Your task to perform on an android device: open app "Upside-Cash back on gas & food" (install if not already installed), go to login, and select forgot password Image 0: 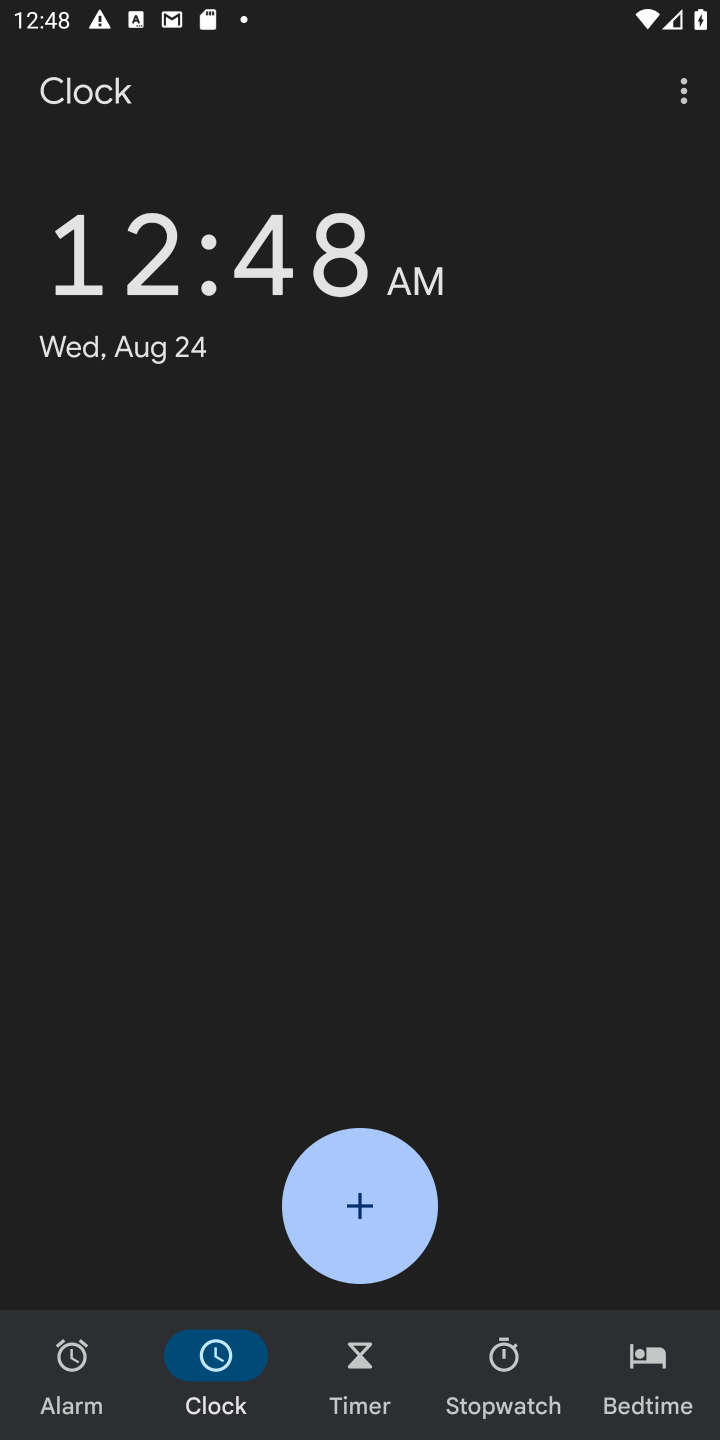
Step 0: press home button
Your task to perform on an android device: open app "Upside-Cash back on gas & food" (install if not already installed), go to login, and select forgot password Image 1: 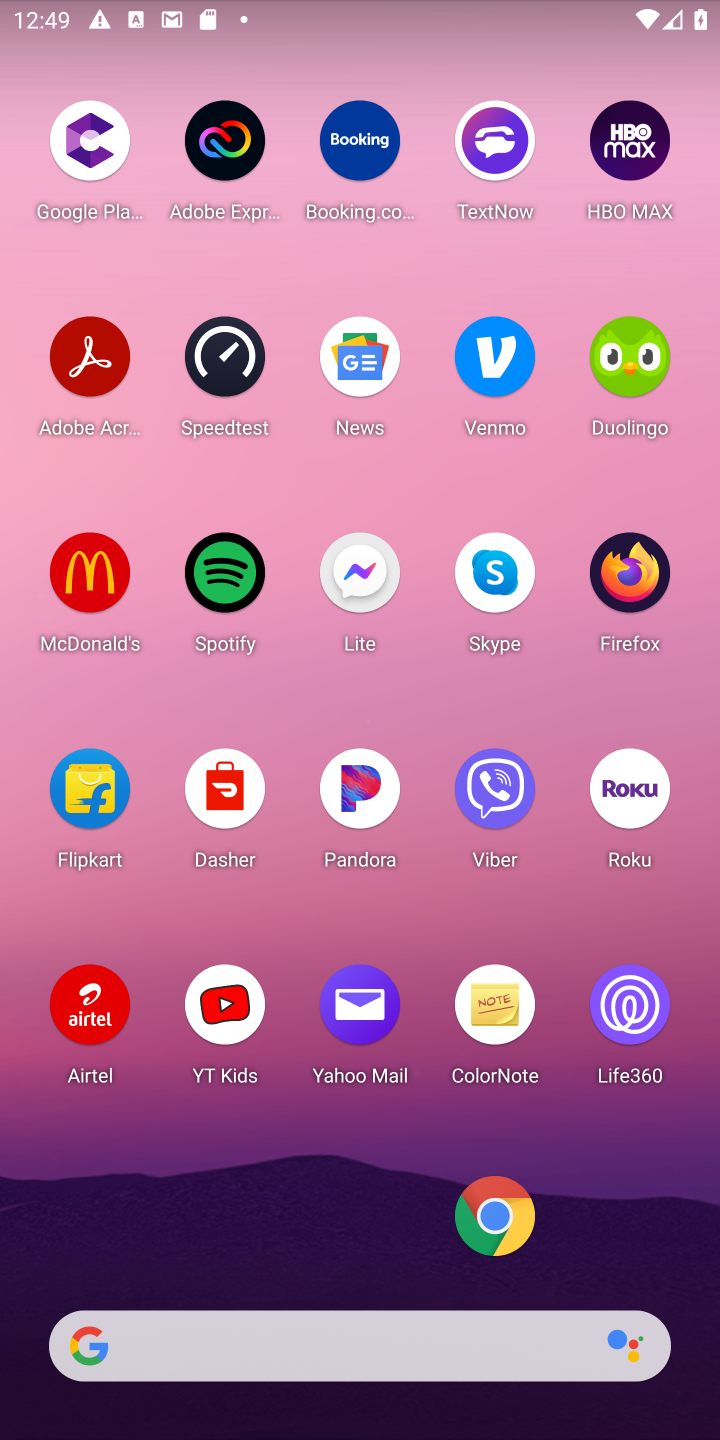
Step 1: drag from (316, 1288) to (410, 91)
Your task to perform on an android device: open app "Upside-Cash back on gas & food" (install if not already installed), go to login, and select forgot password Image 2: 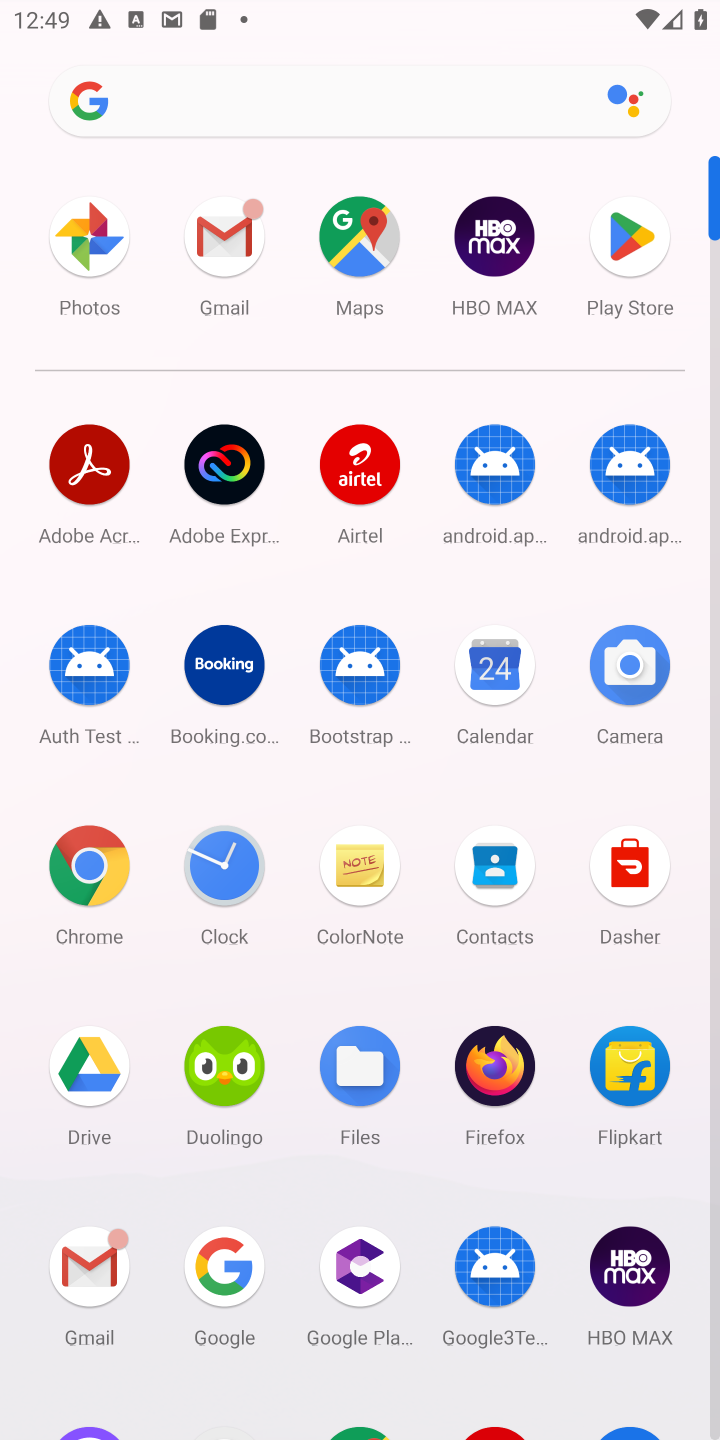
Step 2: click (633, 236)
Your task to perform on an android device: open app "Upside-Cash back on gas & food" (install if not already installed), go to login, and select forgot password Image 3: 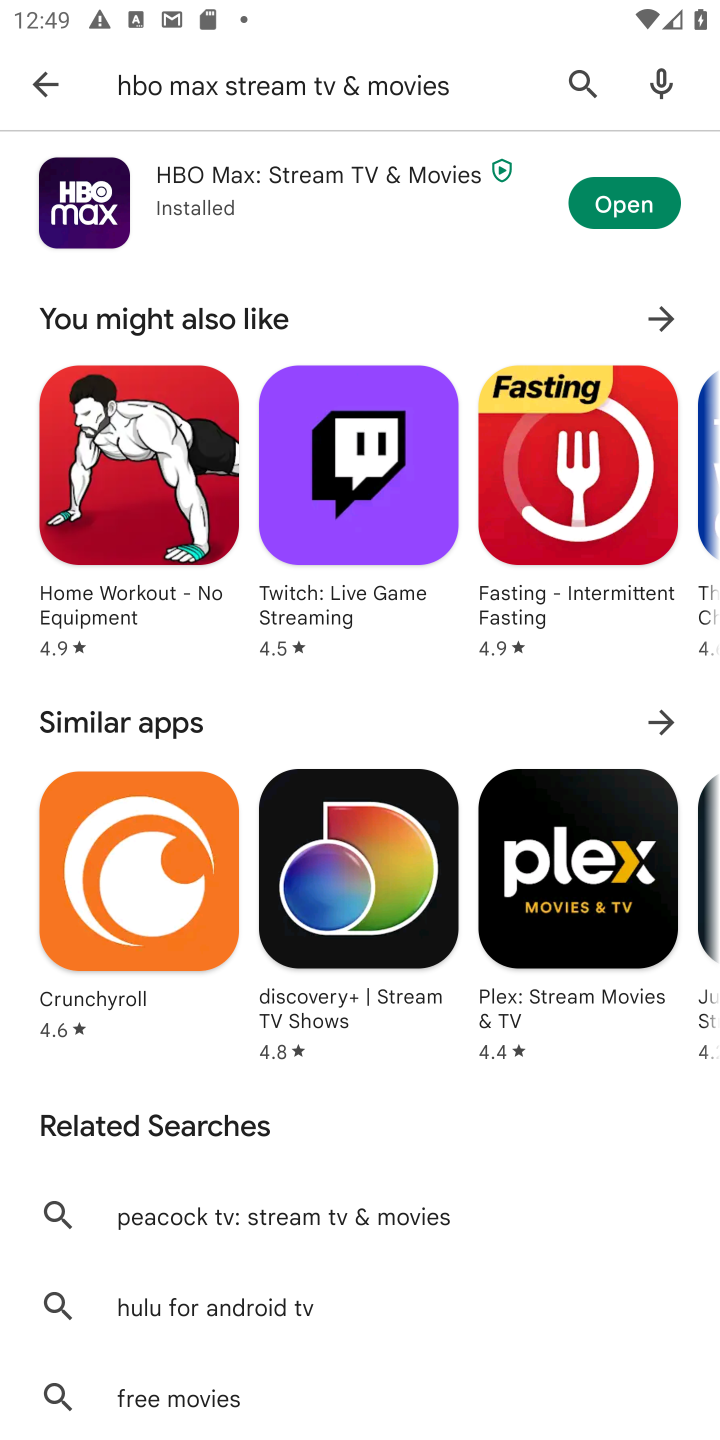
Step 3: press back button
Your task to perform on an android device: open app "Upside-Cash back on gas & food" (install if not already installed), go to login, and select forgot password Image 4: 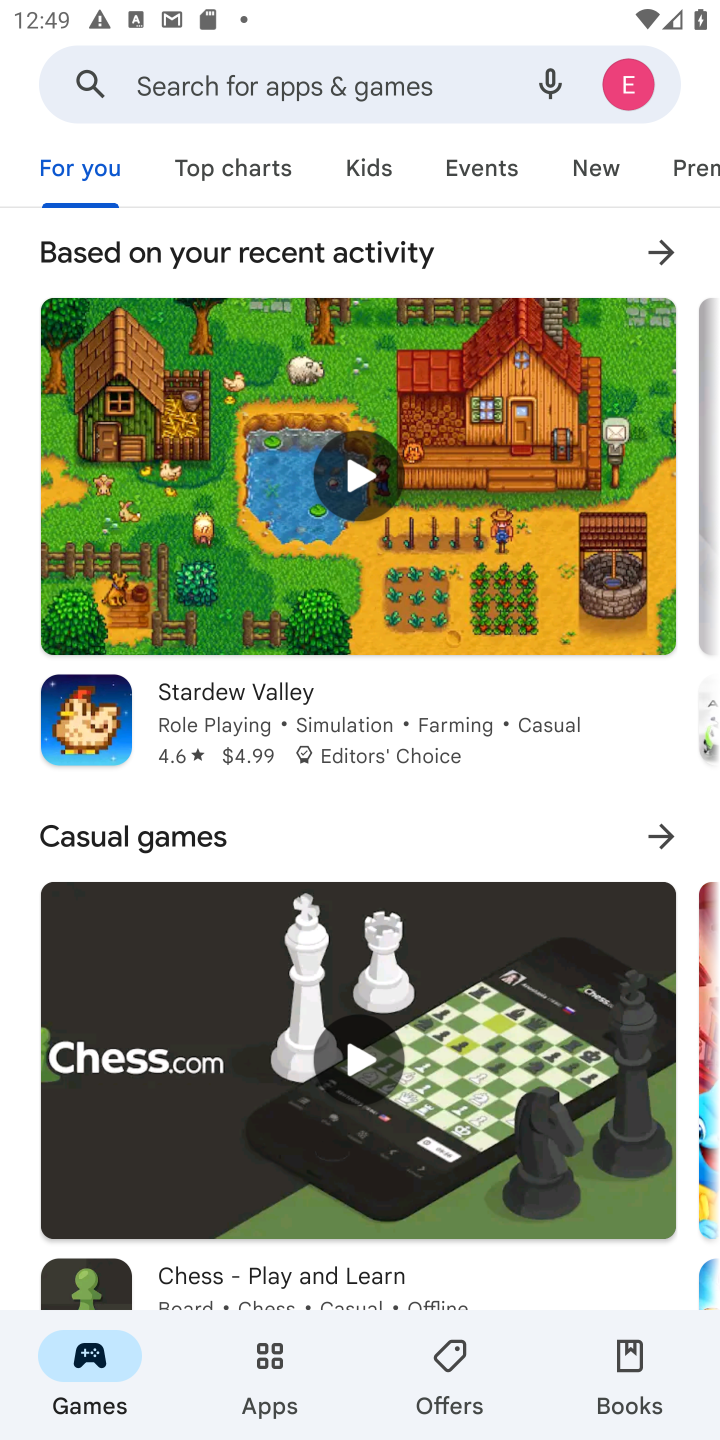
Step 4: click (355, 74)
Your task to perform on an android device: open app "Upside-Cash back on gas & food" (install if not already installed), go to login, and select forgot password Image 5: 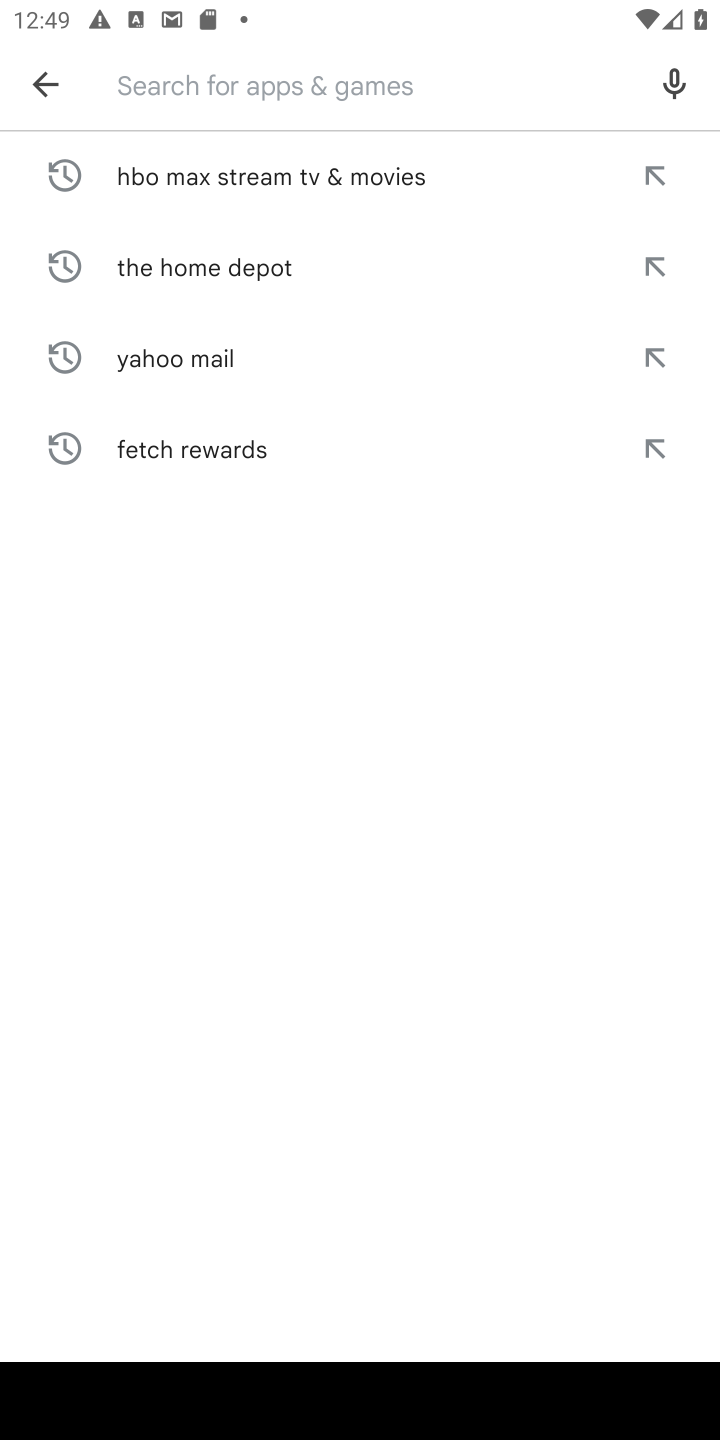
Step 5: type "Upside-Cash back on gas & food"
Your task to perform on an android device: open app "Upside-Cash back on gas & food" (install if not already installed), go to login, and select forgot password Image 6: 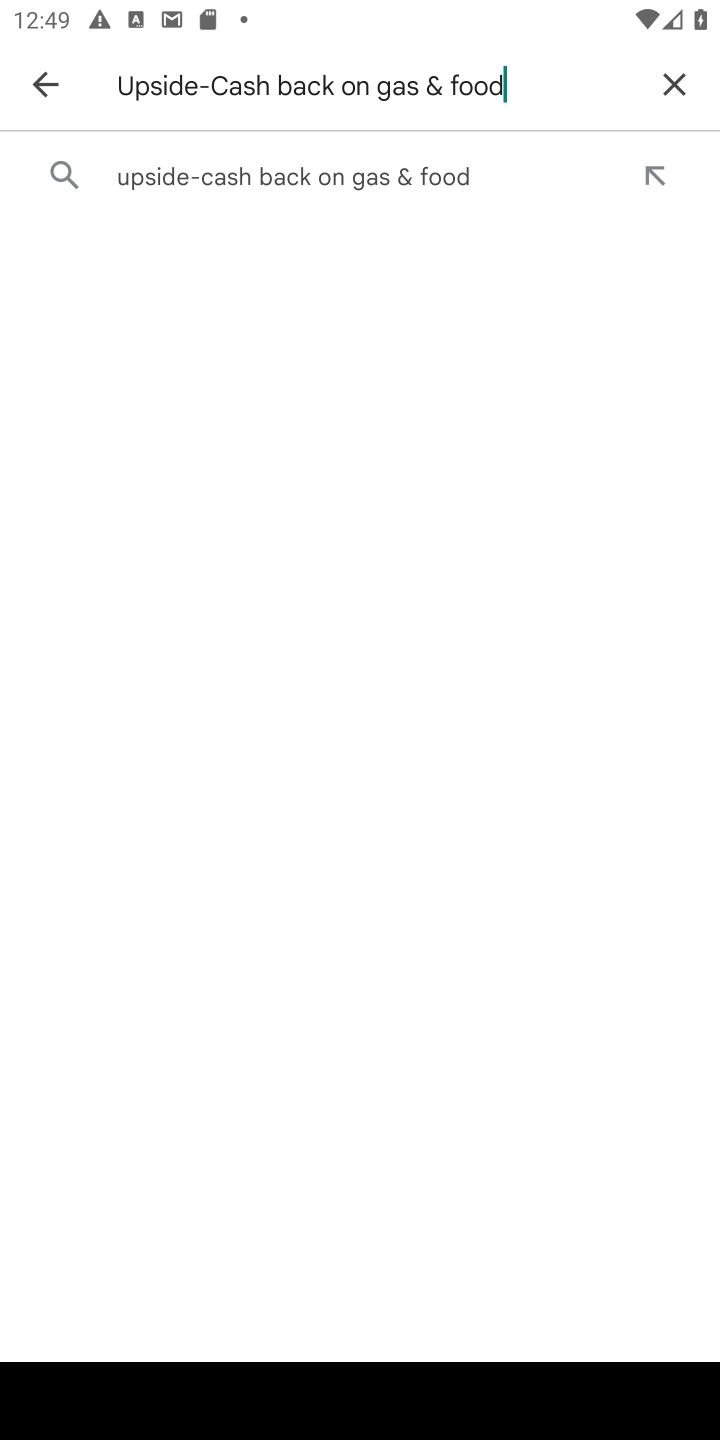
Step 6: click (355, 175)
Your task to perform on an android device: open app "Upside-Cash back on gas & food" (install if not already installed), go to login, and select forgot password Image 7: 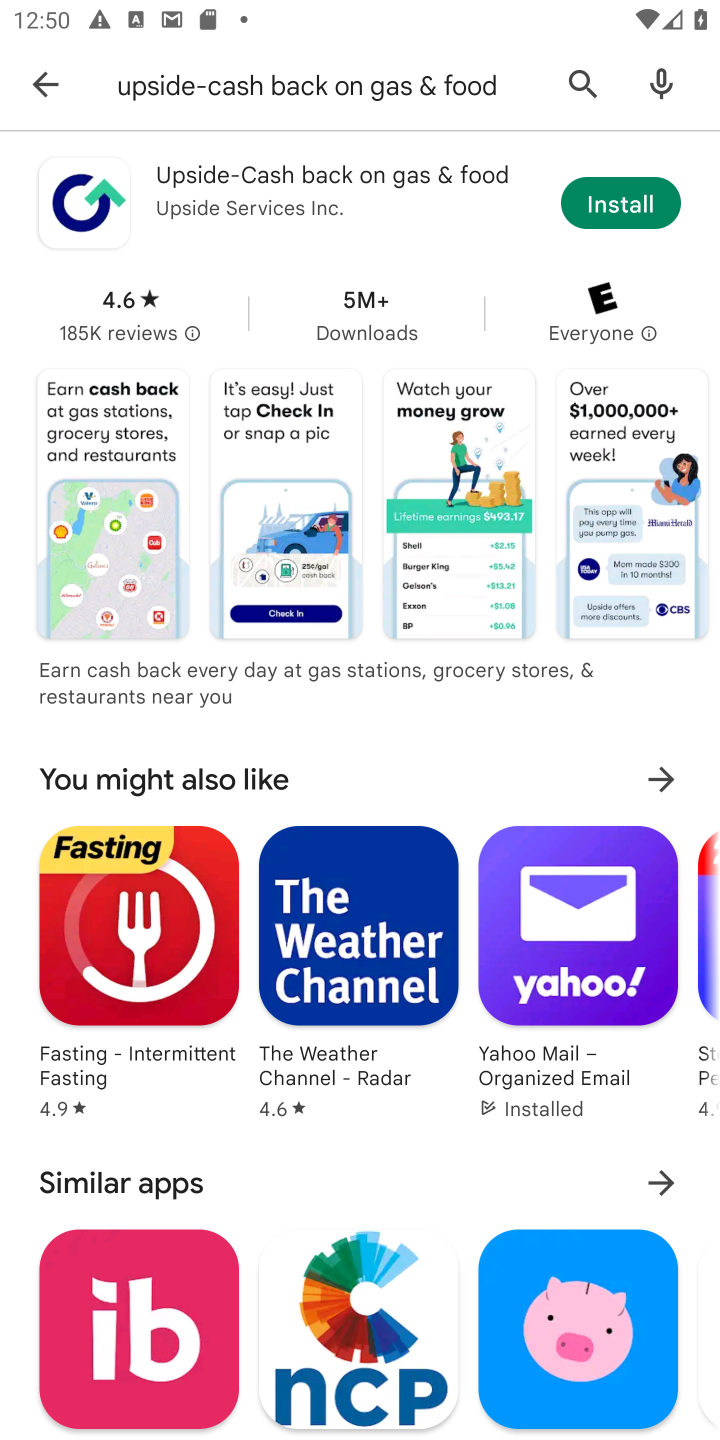
Step 7: click (604, 202)
Your task to perform on an android device: open app "Upside-Cash back on gas & food" (install if not already installed), go to login, and select forgot password Image 8: 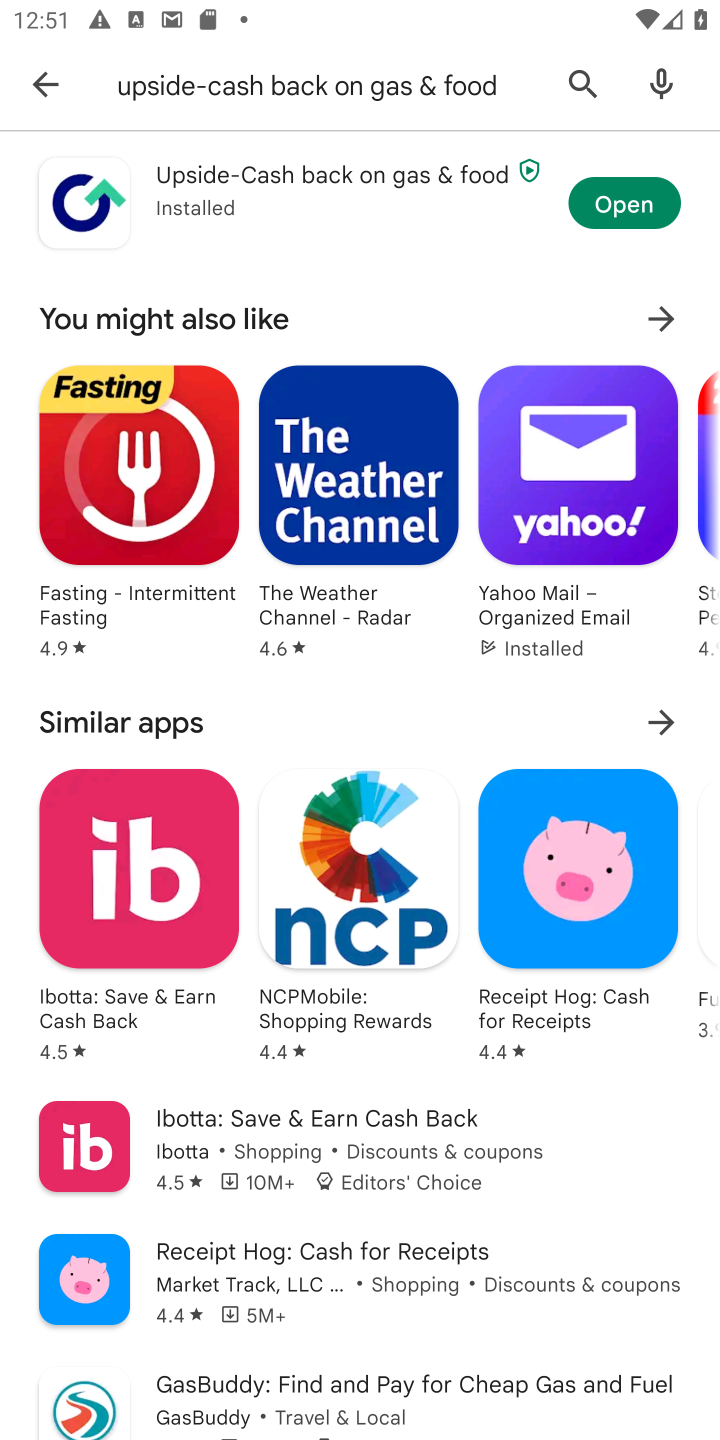
Step 8: click (608, 214)
Your task to perform on an android device: open app "Upside-Cash back on gas & food" (install if not already installed), go to login, and select forgot password Image 9: 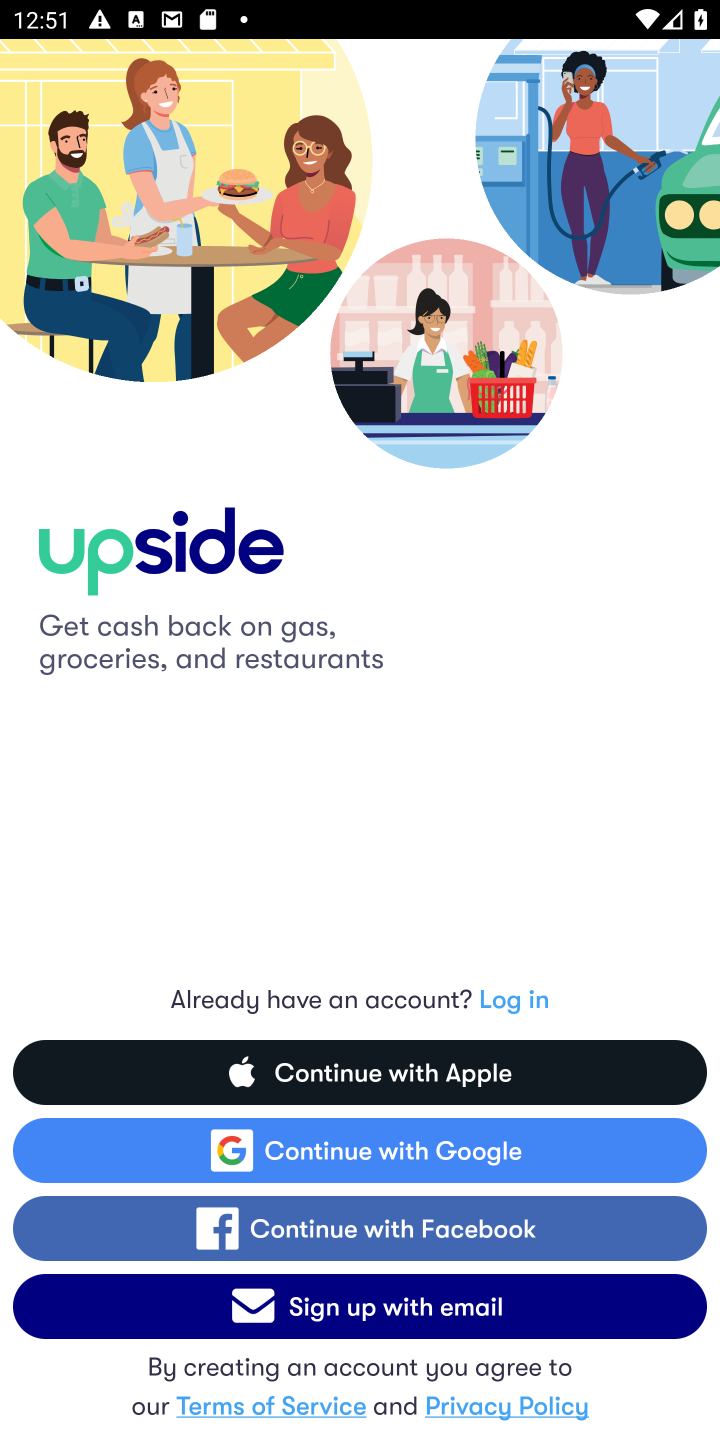
Step 9: click (520, 1000)
Your task to perform on an android device: open app "Upside-Cash back on gas & food" (install if not already installed), go to login, and select forgot password Image 10: 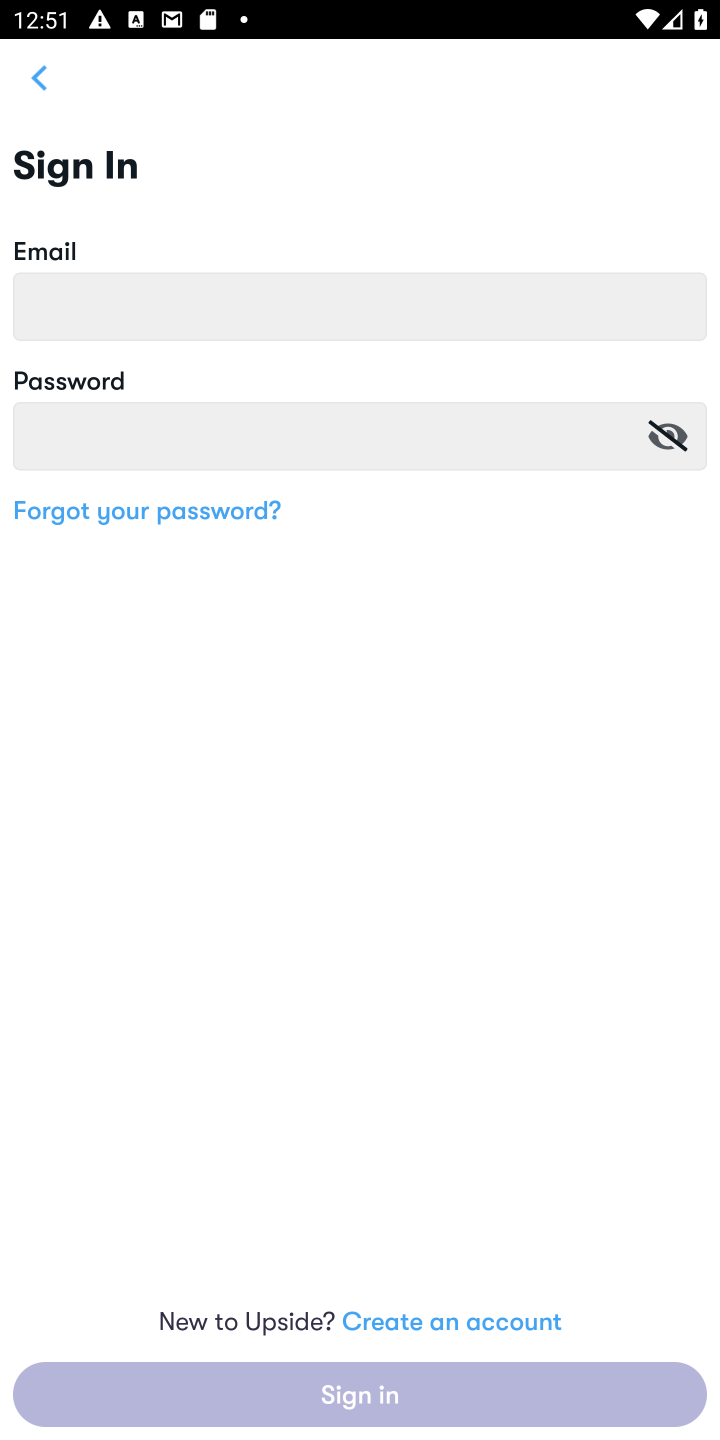
Step 10: click (170, 516)
Your task to perform on an android device: open app "Upside-Cash back on gas & food" (install if not already installed), go to login, and select forgot password Image 11: 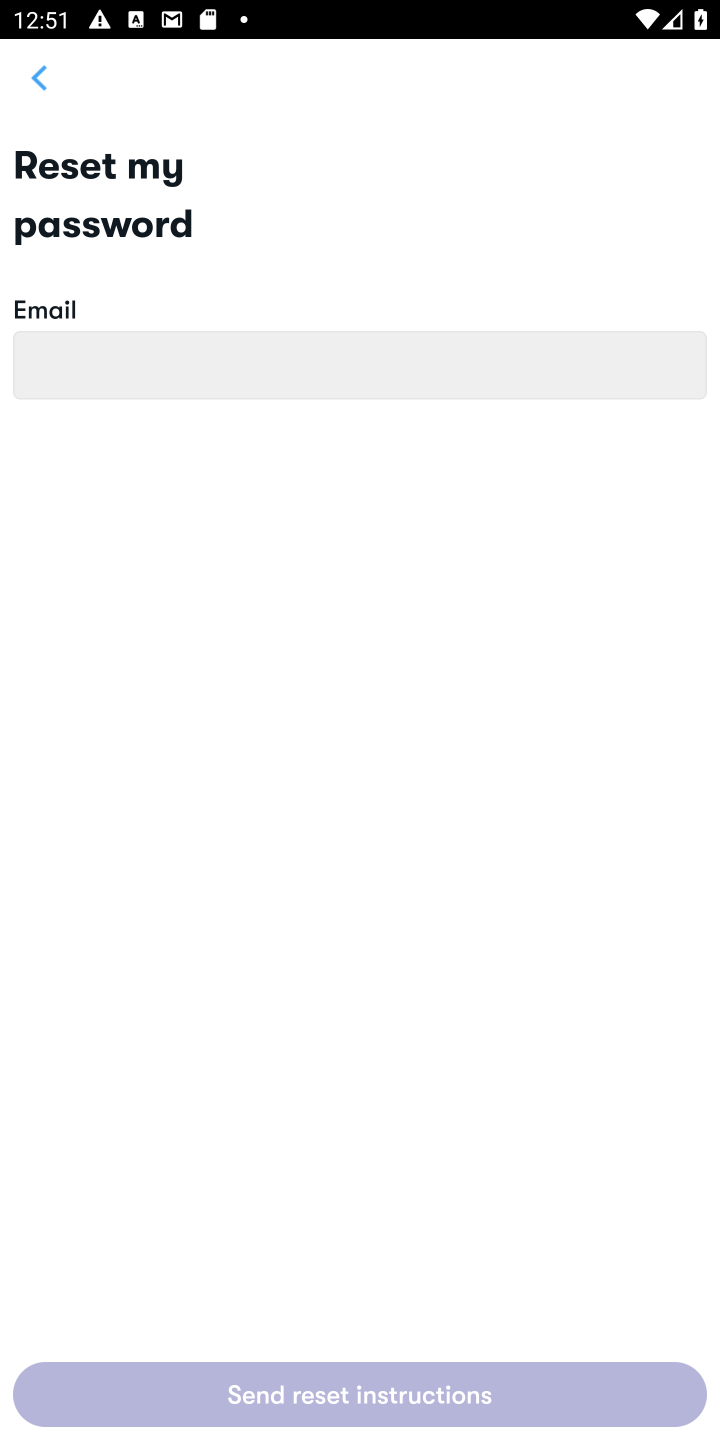
Step 11: task complete